Your task to perform on an android device: all mails in gmail Image 0: 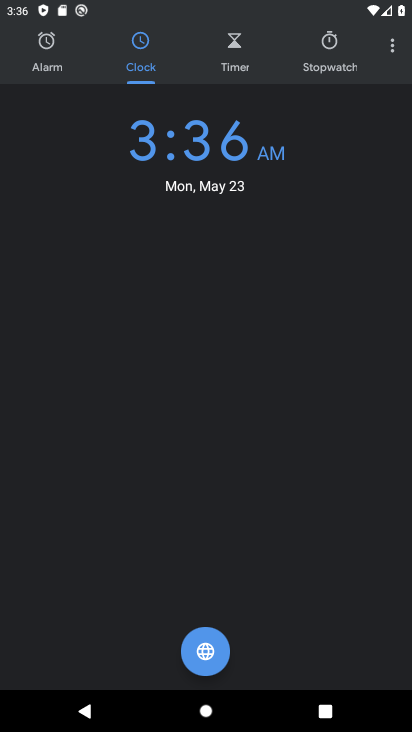
Step 0: press home button
Your task to perform on an android device: all mails in gmail Image 1: 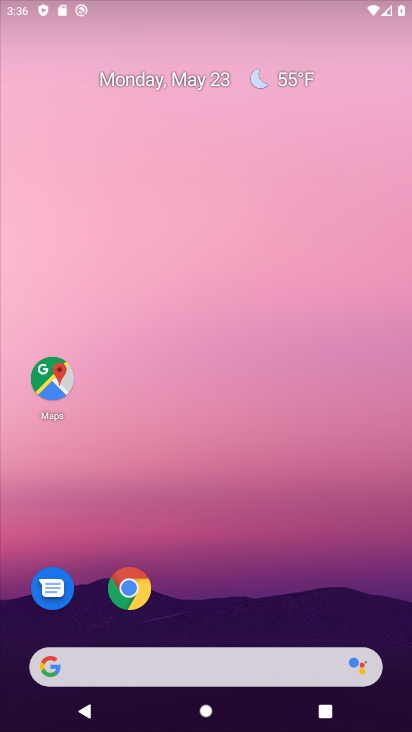
Step 1: drag from (187, 514) to (287, 53)
Your task to perform on an android device: all mails in gmail Image 2: 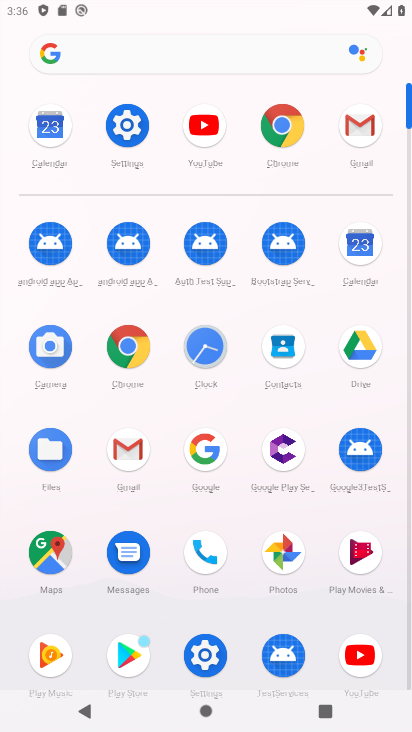
Step 2: click (368, 116)
Your task to perform on an android device: all mails in gmail Image 3: 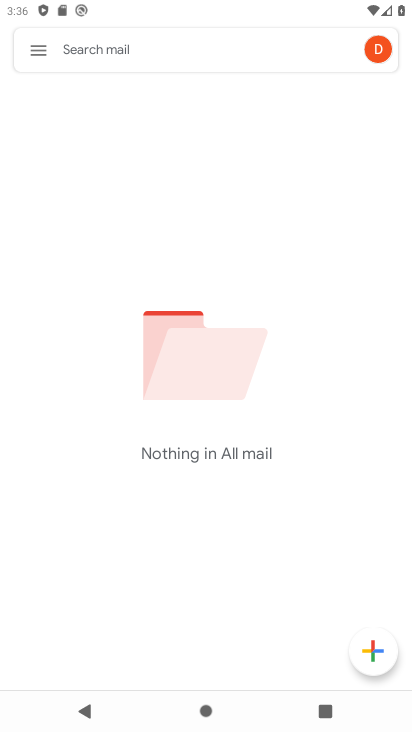
Step 3: task complete